Your task to perform on an android device: open sync settings in chrome Image 0: 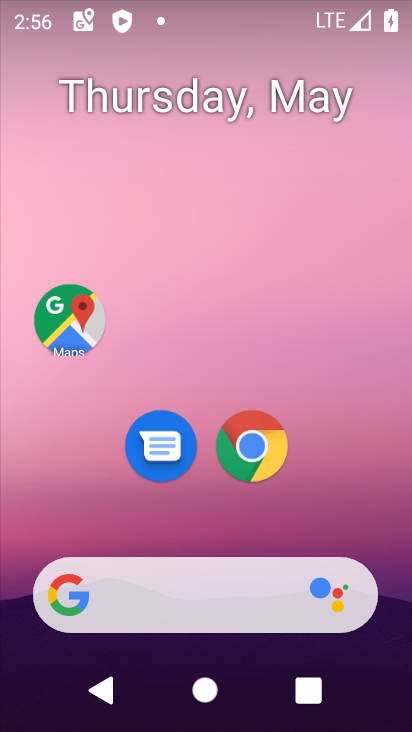
Step 0: click (246, 441)
Your task to perform on an android device: open sync settings in chrome Image 1: 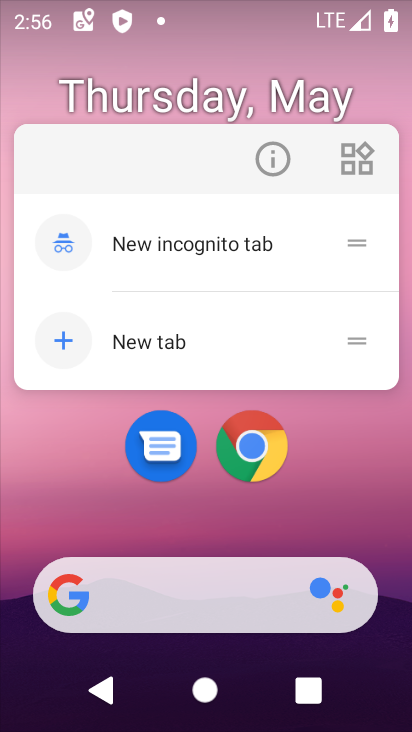
Step 1: click (271, 436)
Your task to perform on an android device: open sync settings in chrome Image 2: 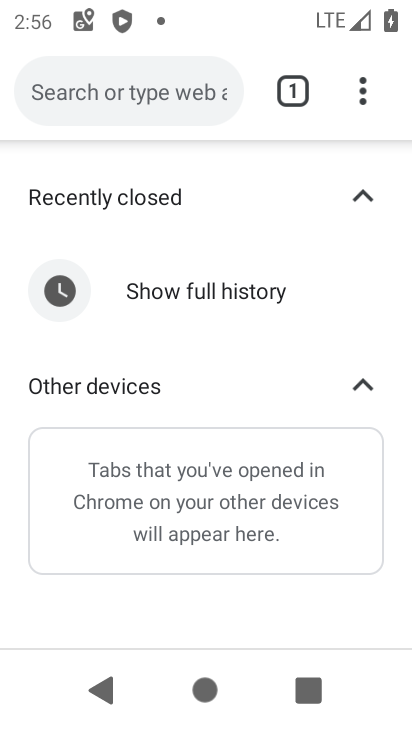
Step 2: click (357, 90)
Your task to perform on an android device: open sync settings in chrome Image 3: 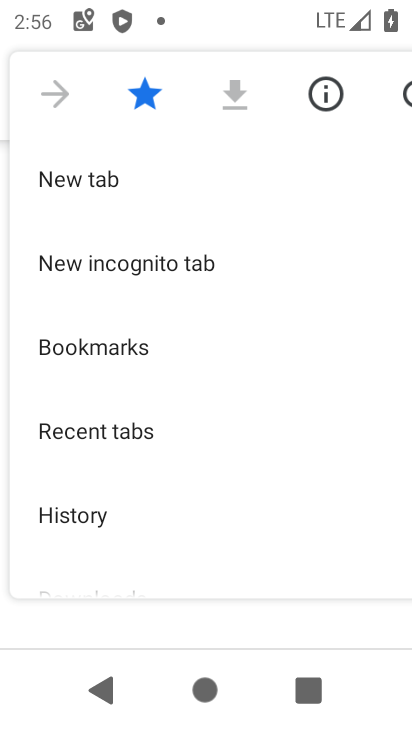
Step 3: drag from (196, 565) to (244, 259)
Your task to perform on an android device: open sync settings in chrome Image 4: 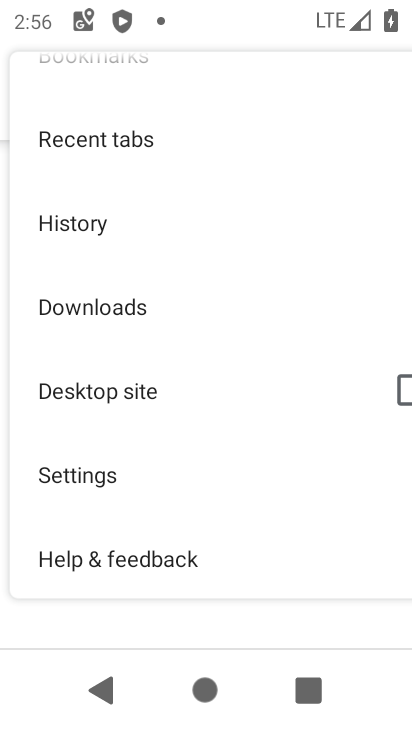
Step 4: click (127, 465)
Your task to perform on an android device: open sync settings in chrome Image 5: 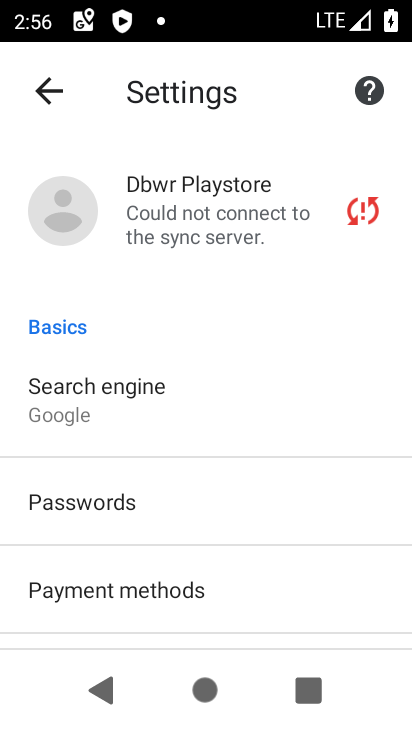
Step 5: click (177, 235)
Your task to perform on an android device: open sync settings in chrome Image 6: 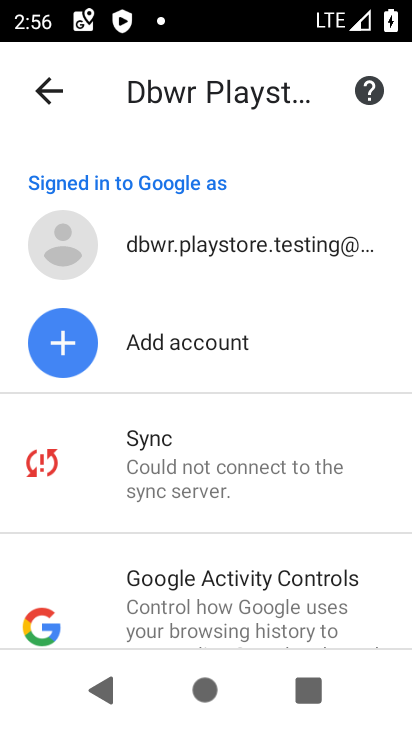
Step 6: click (215, 478)
Your task to perform on an android device: open sync settings in chrome Image 7: 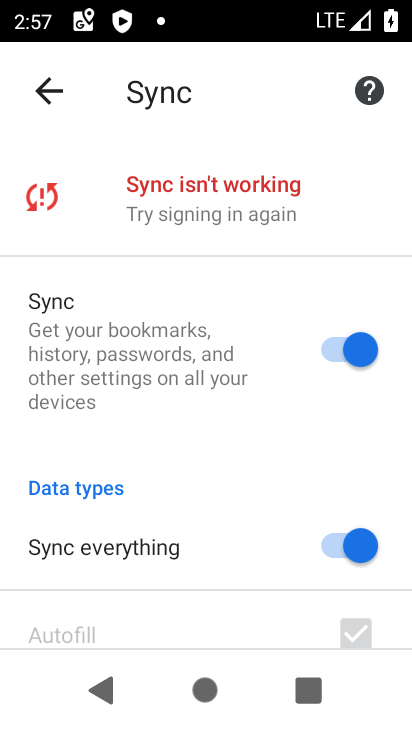
Step 7: task complete